Your task to perform on an android device: open app "Upside-Cash back on gas & food" (install if not already installed) Image 0: 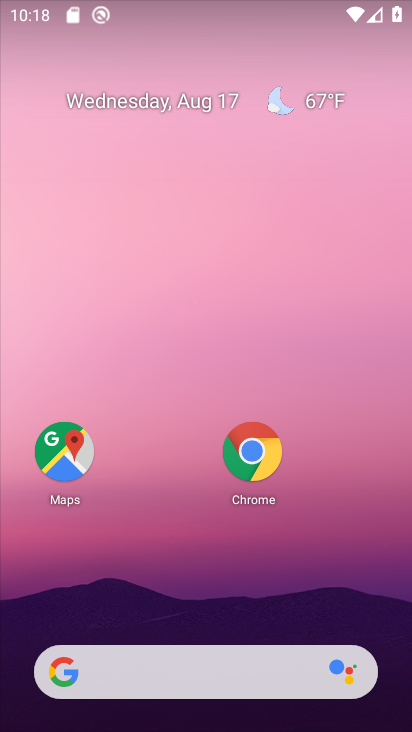
Step 0: drag from (220, 579) to (170, 67)
Your task to perform on an android device: open app "Upside-Cash back on gas & food" (install if not already installed) Image 1: 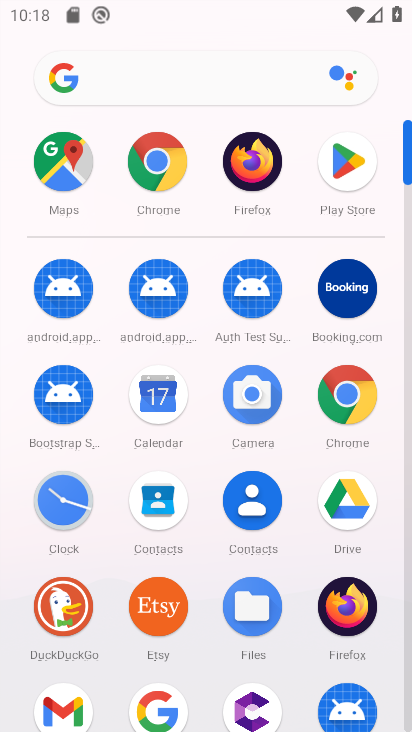
Step 1: click (352, 161)
Your task to perform on an android device: open app "Upside-Cash back on gas & food" (install if not already installed) Image 2: 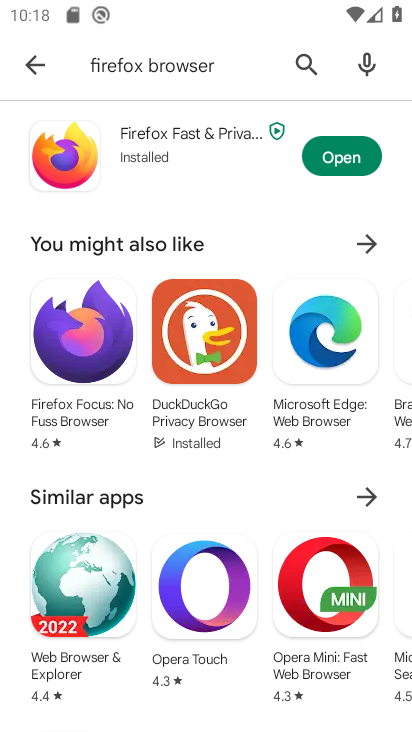
Step 2: click (31, 64)
Your task to perform on an android device: open app "Upside-Cash back on gas & food" (install if not already installed) Image 3: 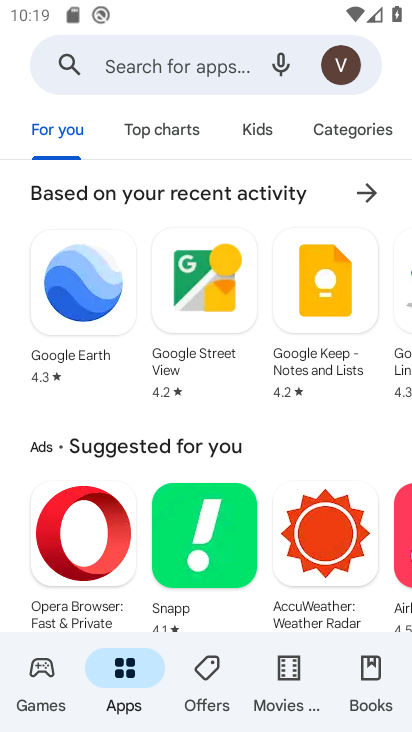
Step 3: click (173, 72)
Your task to perform on an android device: open app "Upside-Cash back on gas & food" (install if not already installed) Image 4: 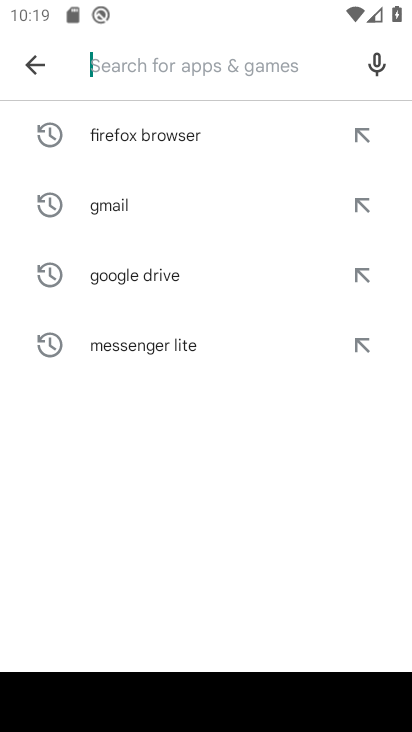
Step 4: type "Upside-Cash back on gas & food"
Your task to perform on an android device: open app "Upside-Cash back on gas & food" (install if not already installed) Image 5: 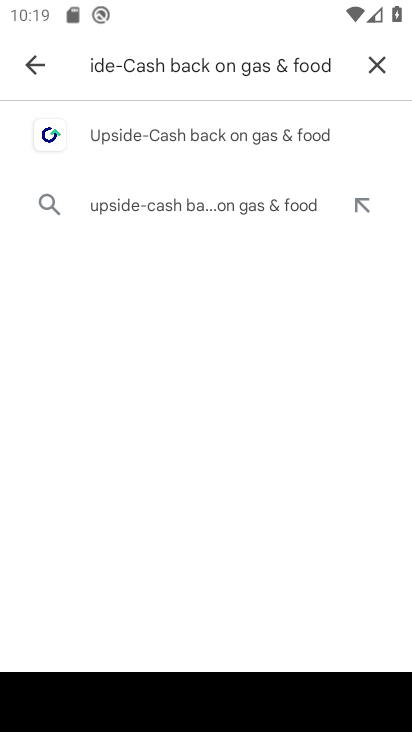
Step 5: click (218, 140)
Your task to perform on an android device: open app "Upside-Cash back on gas & food" (install if not already installed) Image 6: 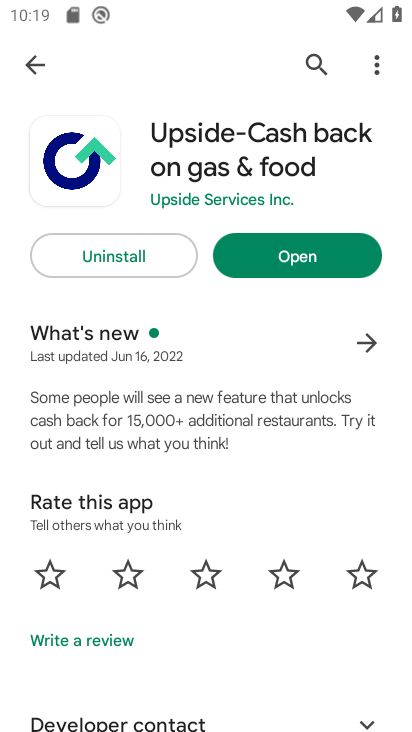
Step 6: click (305, 266)
Your task to perform on an android device: open app "Upside-Cash back on gas & food" (install if not already installed) Image 7: 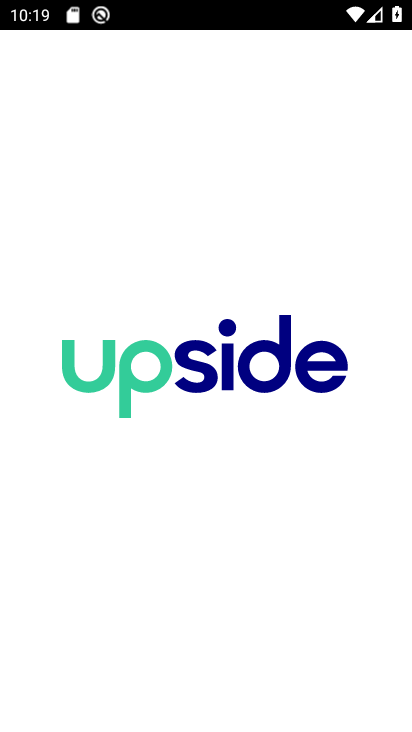
Step 7: task complete